Your task to perform on an android device: Search for "logitech g pro" on target.com, select the first entry, add it to the cart, then select checkout. Image 0: 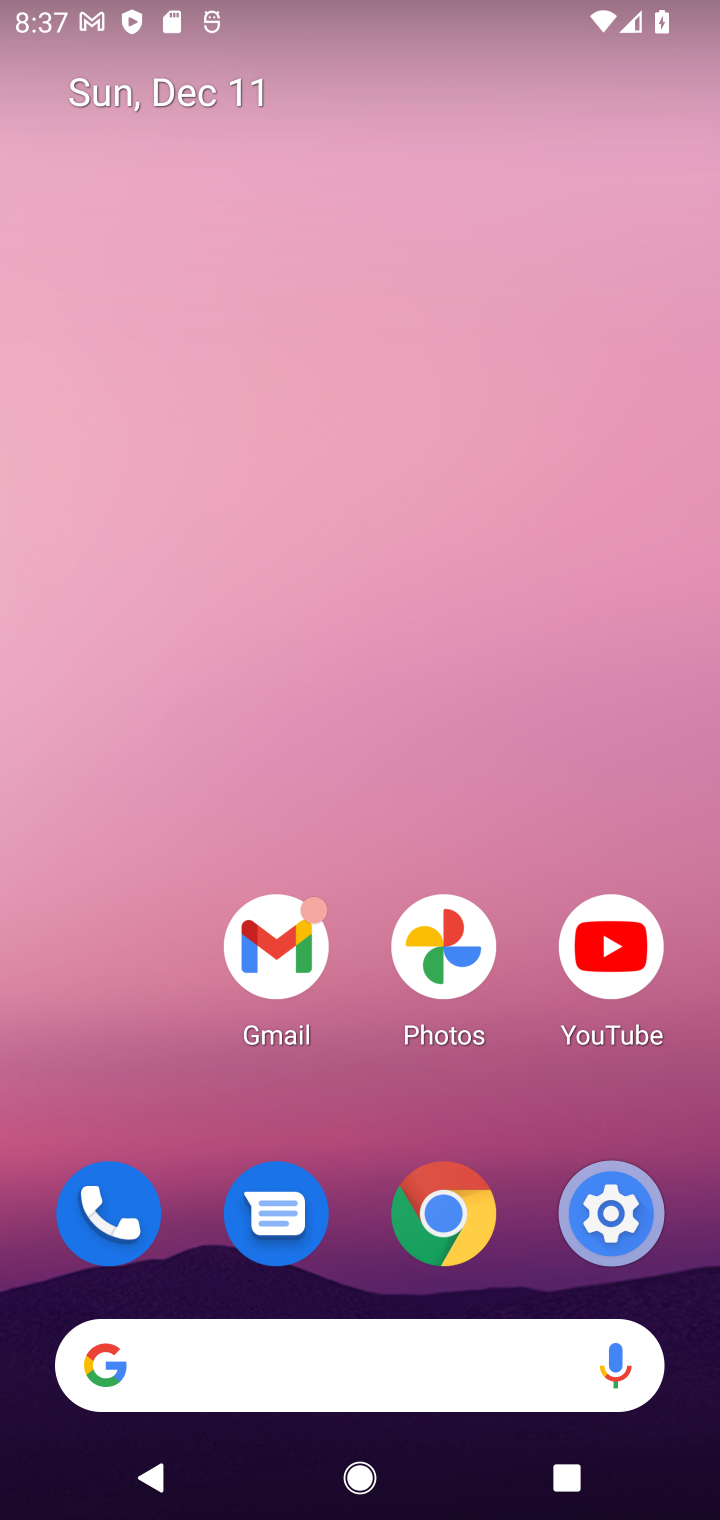
Step 0: click (398, 1363)
Your task to perform on an android device: Search for "logitech g pro" on target.com, select the first entry, add it to the cart, then select checkout. Image 1: 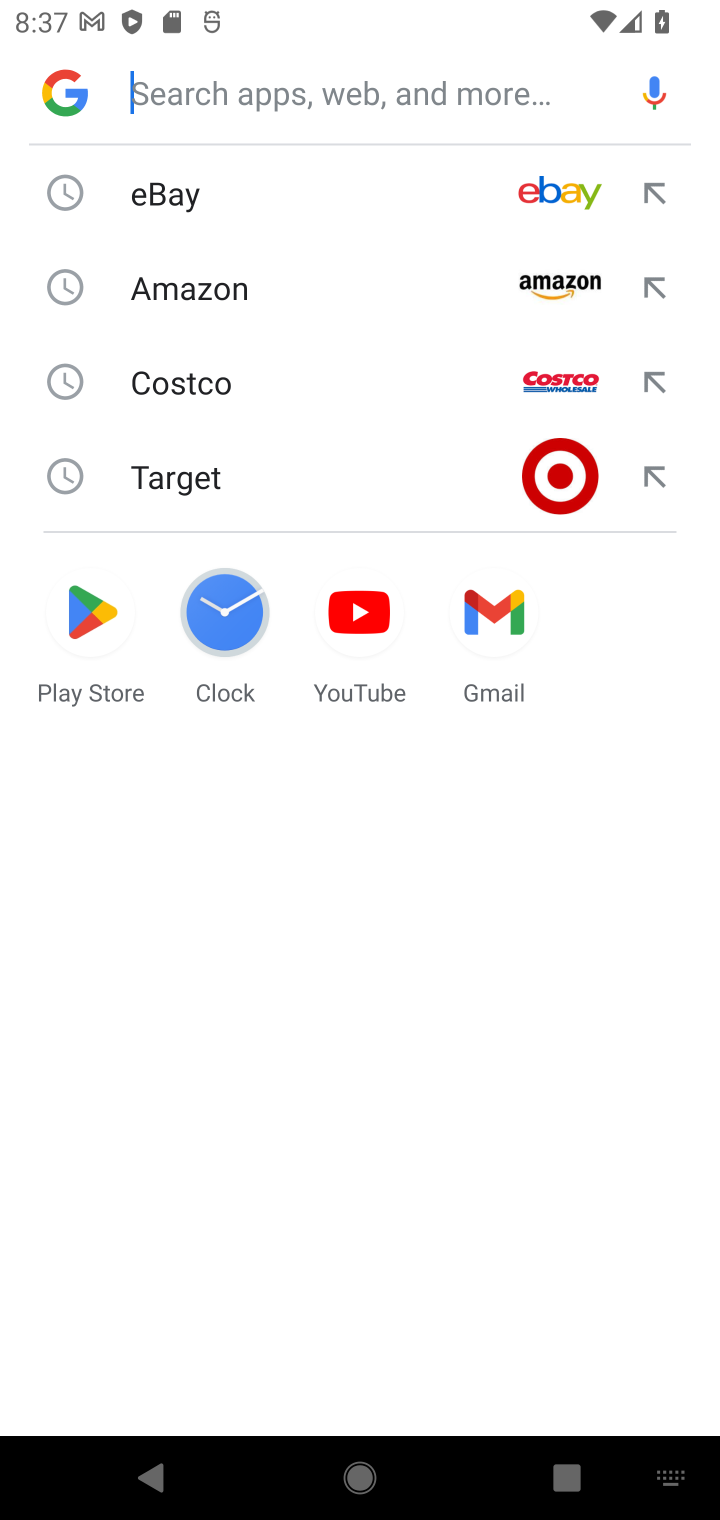
Step 1: type "target"
Your task to perform on an android device: Search for "logitech g pro" on target.com, select the first entry, add it to the cart, then select checkout. Image 2: 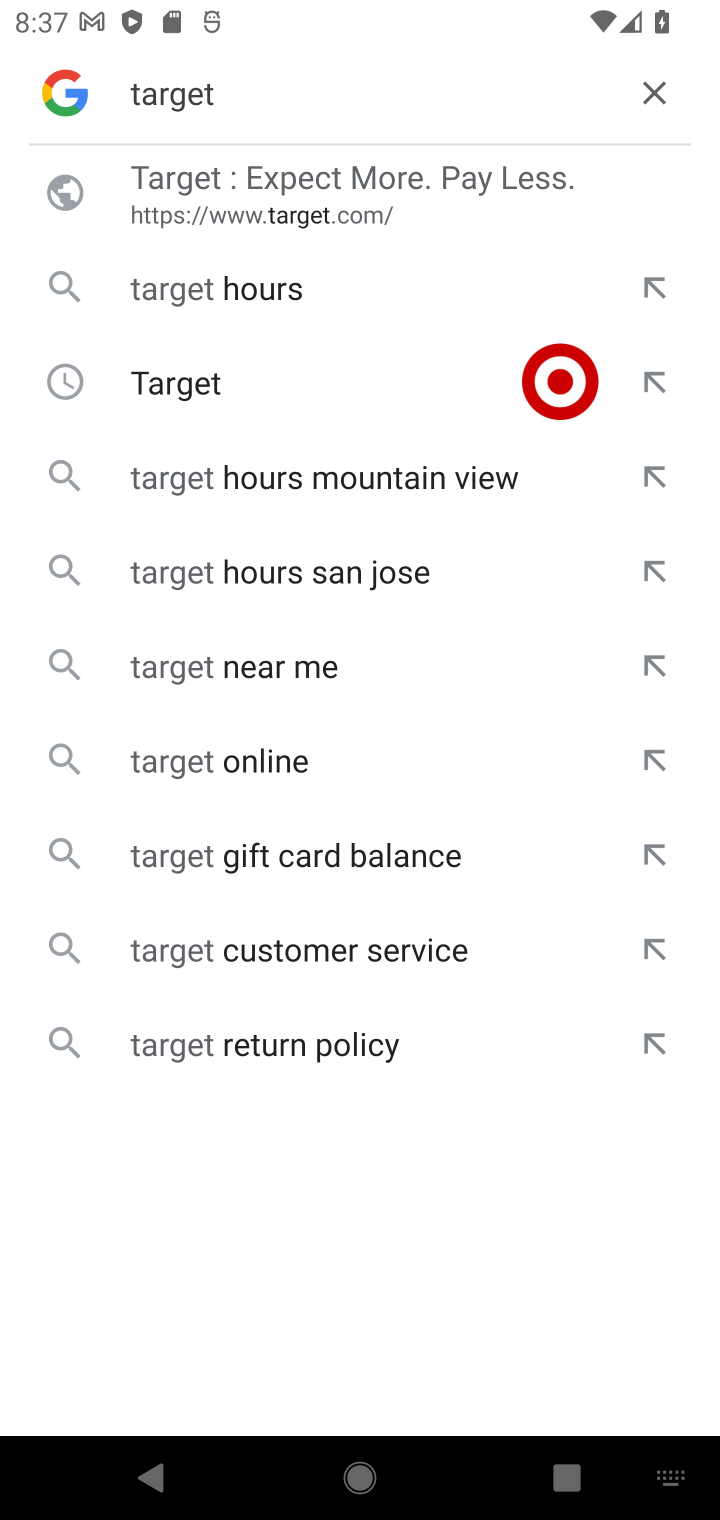
Step 2: click (242, 226)
Your task to perform on an android device: Search for "logitech g pro" on target.com, select the first entry, add it to the cart, then select checkout. Image 3: 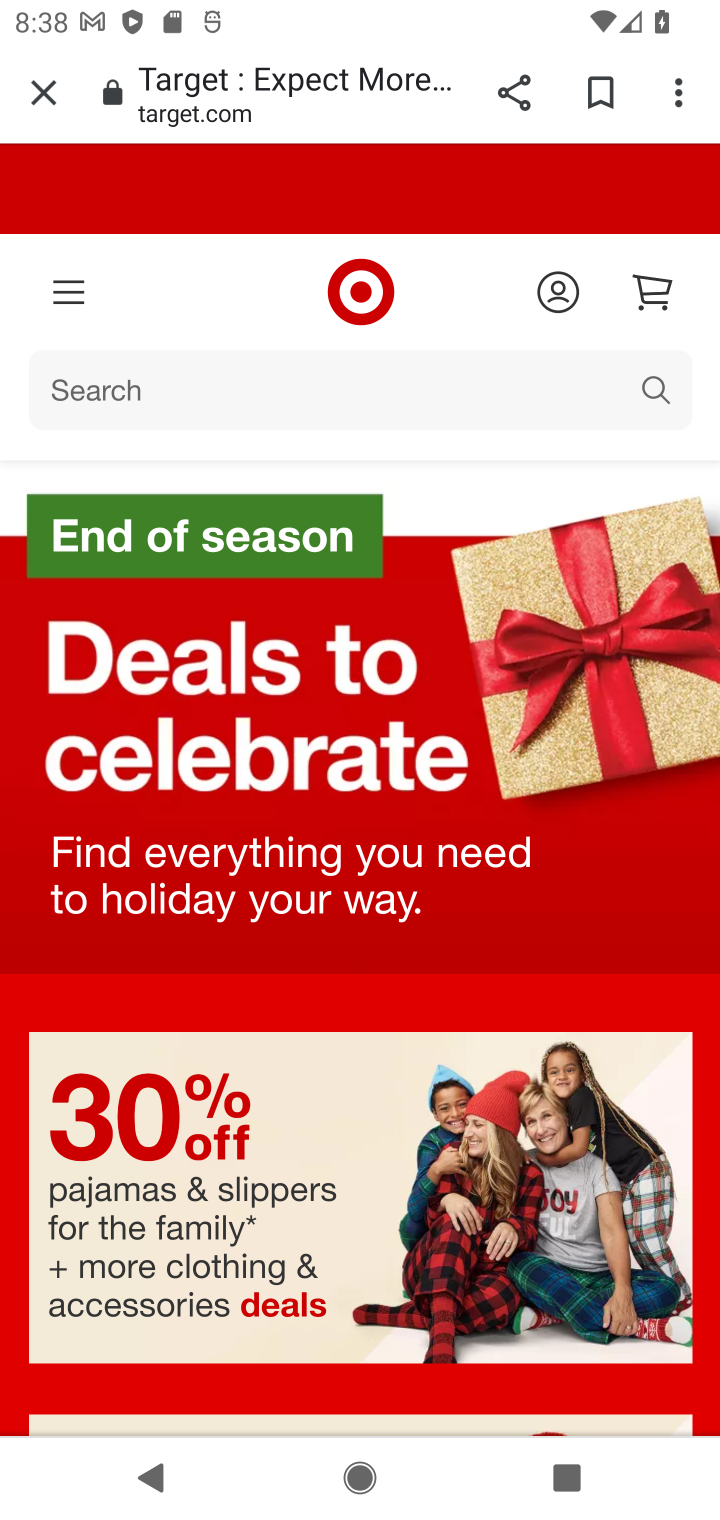
Step 3: click (276, 396)
Your task to perform on an android device: Search for "logitech g pro" on target.com, select the first entry, add it to the cart, then select checkout. Image 4: 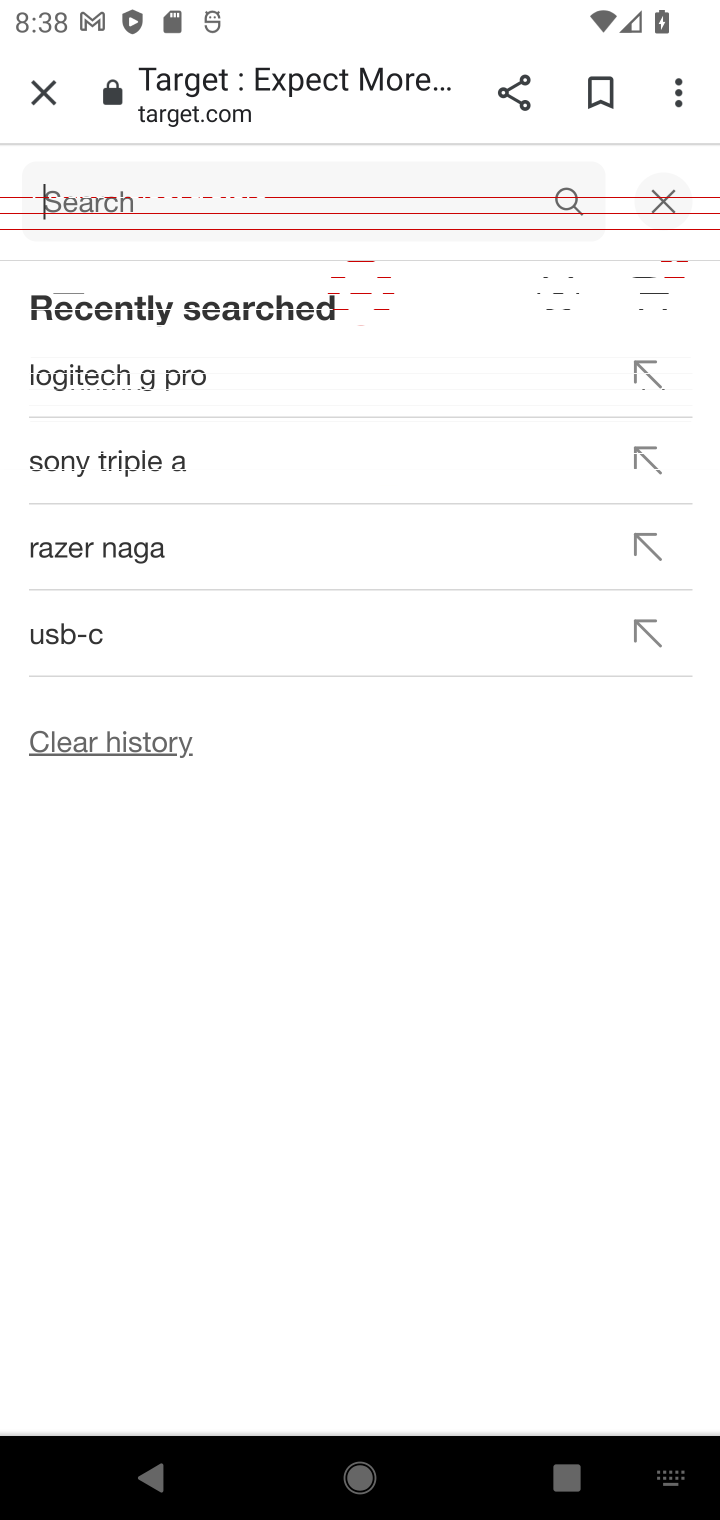
Step 4: type "logitech g pro"
Your task to perform on an android device: Search for "logitech g pro" on target.com, select the first entry, add it to the cart, then select checkout. Image 5: 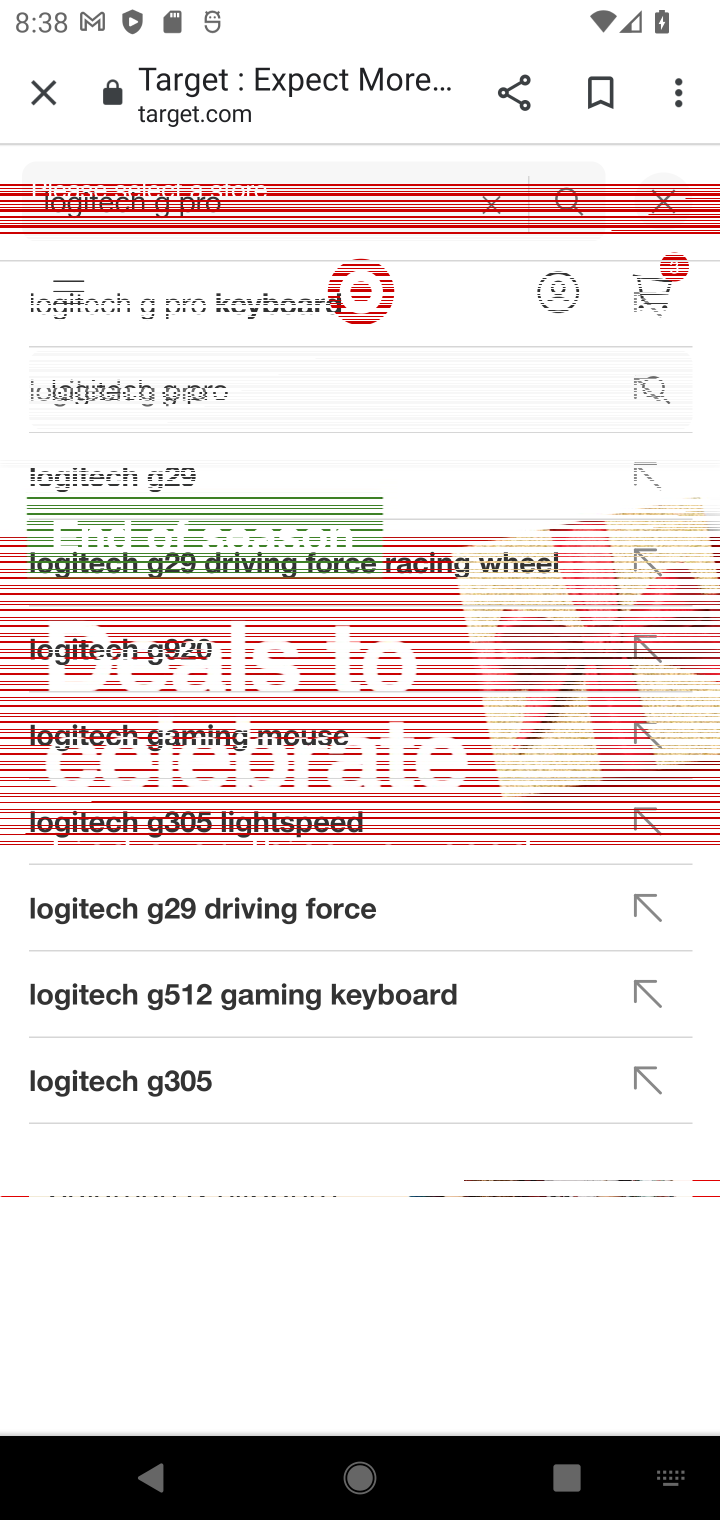
Step 5: click (257, 363)
Your task to perform on an android device: Search for "logitech g pro" on target.com, select the first entry, add it to the cart, then select checkout. Image 6: 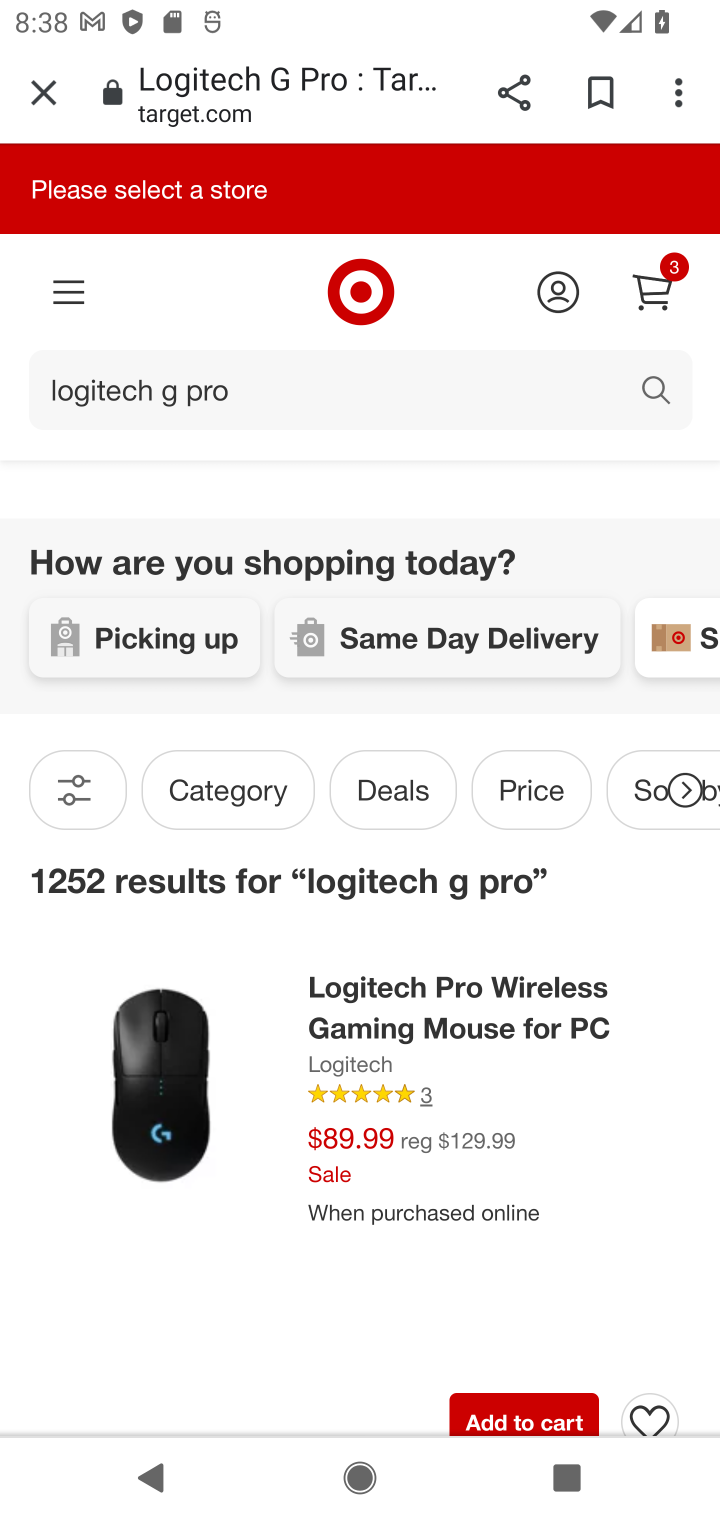
Step 6: click (512, 1418)
Your task to perform on an android device: Search for "logitech g pro" on target.com, select the first entry, add it to the cart, then select checkout. Image 7: 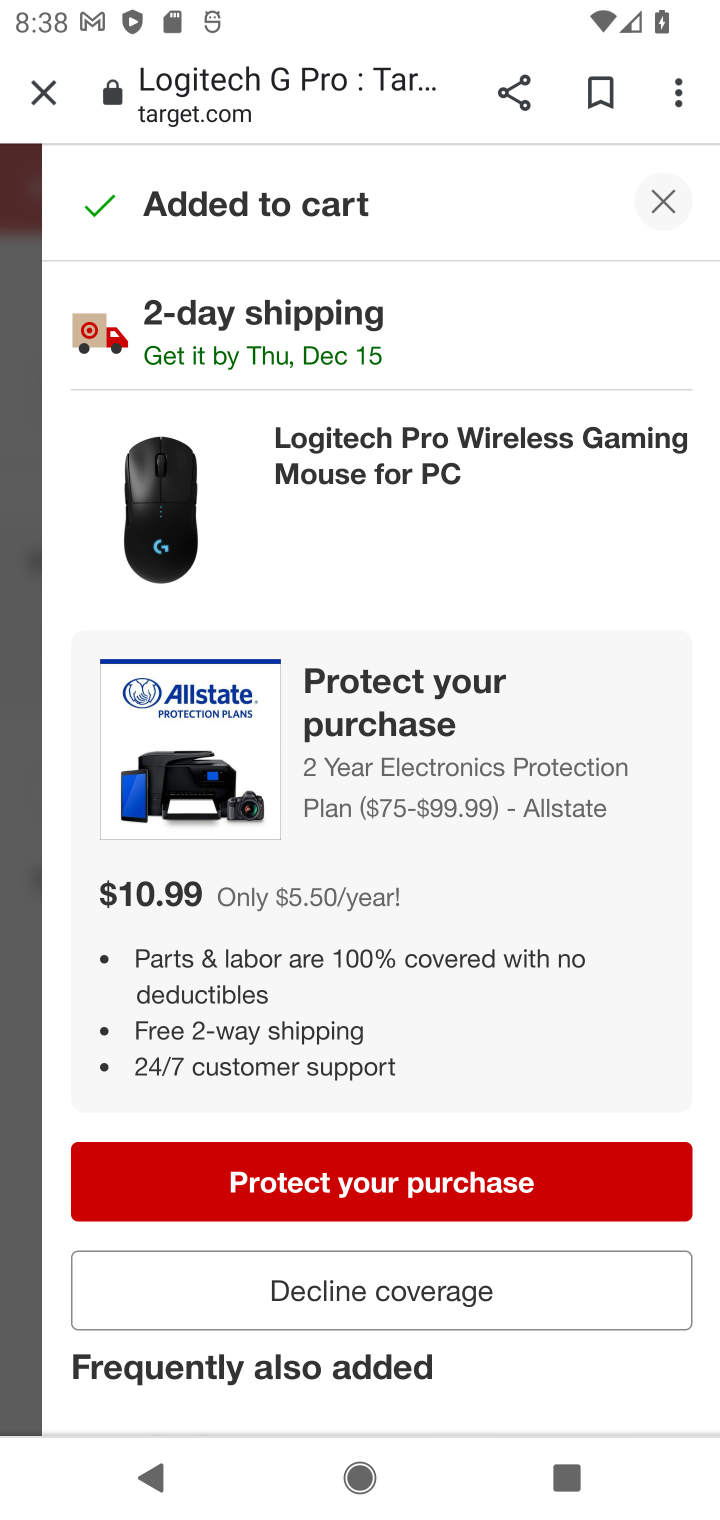
Step 7: click (676, 219)
Your task to perform on an android device: Search for "logitech g pro" on target.com, select the first entry, add it to the cart, then select checkout. Image 8: 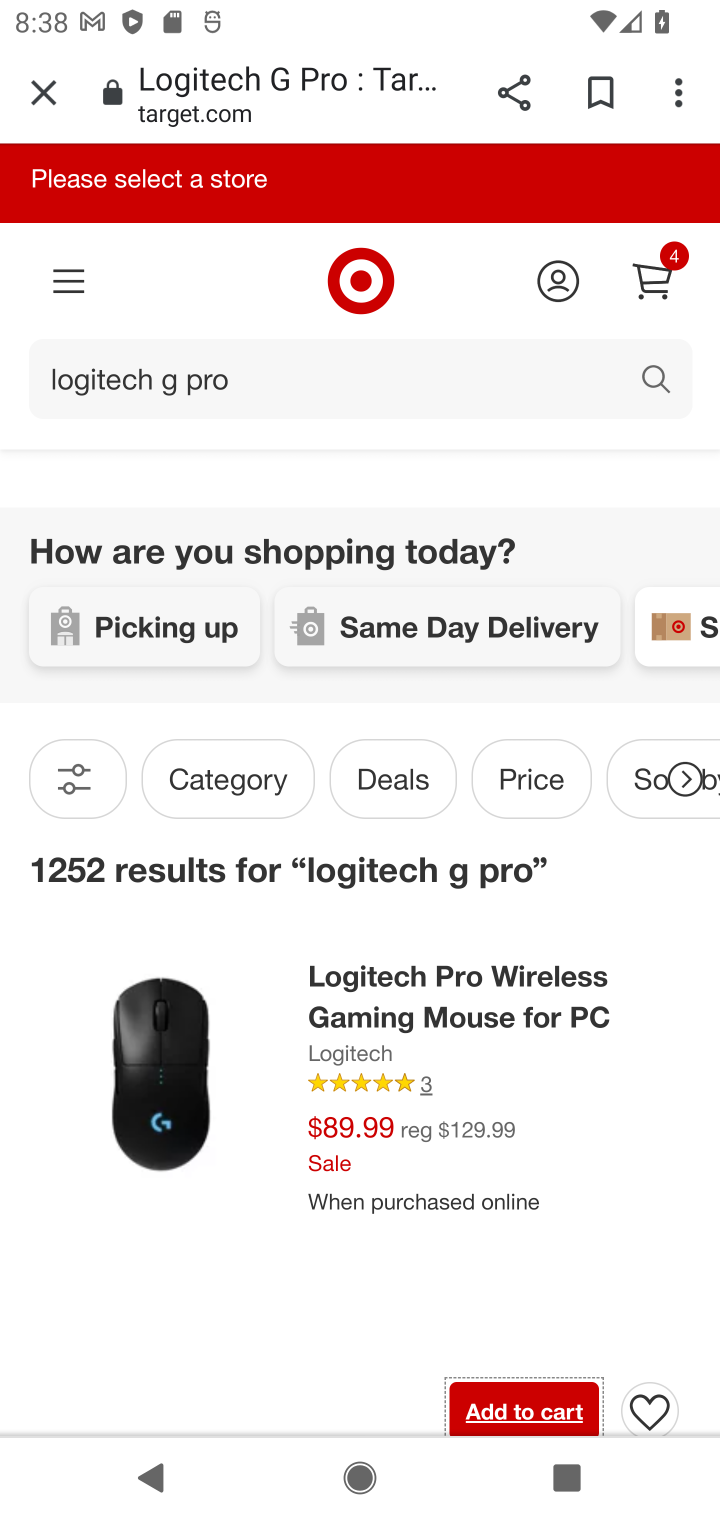
Step 8: task complete